Your task to perform on an android device: Open Google Maps and go to "Timeline" Image 0: 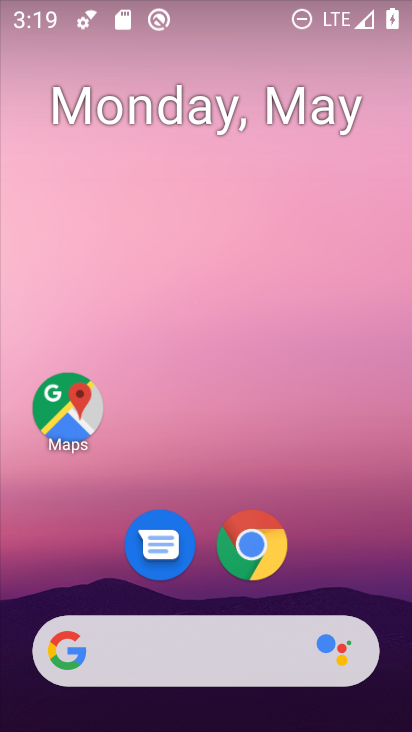
Step 0: click (90, 418)
Your task to perform on an android device: Open Google Maps and go to "Timeline" Image 1: 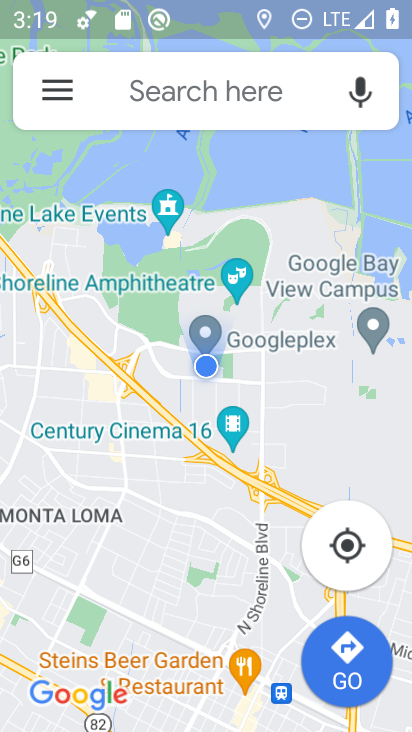
Step 1: click (66, 96)
Your task to perform on an android device: Open Google Maps and go to "Timeline" Image 2: 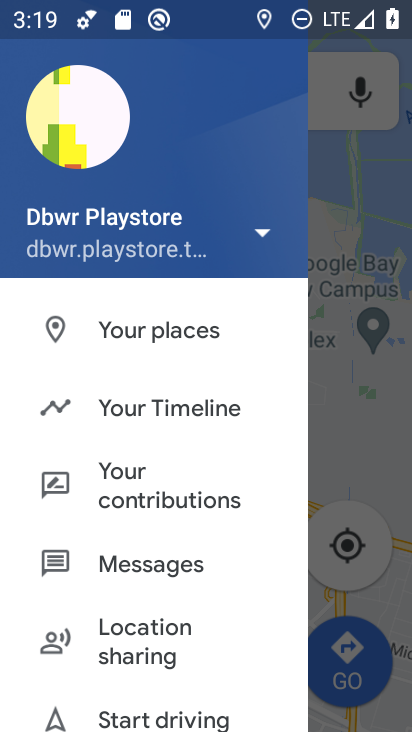
Step 2: click (157, 419)
Your task to perform on an android device: Open Google Maps and go to "Timeline" Image 3: 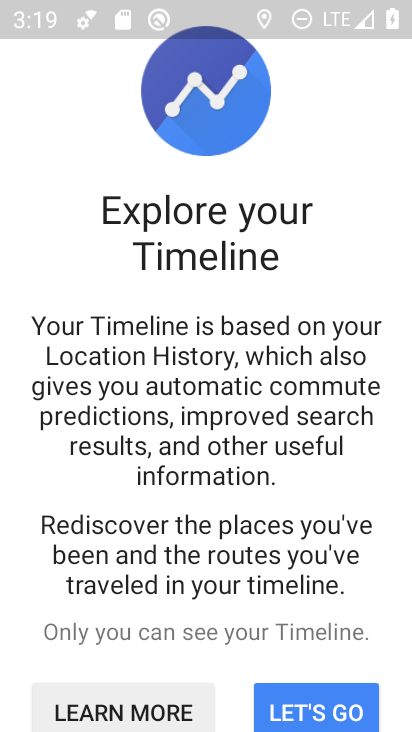
Step 3: click (300, 717)
Your task to perform on an android device: Open Google Maps and go to "Timeline" Image 4: 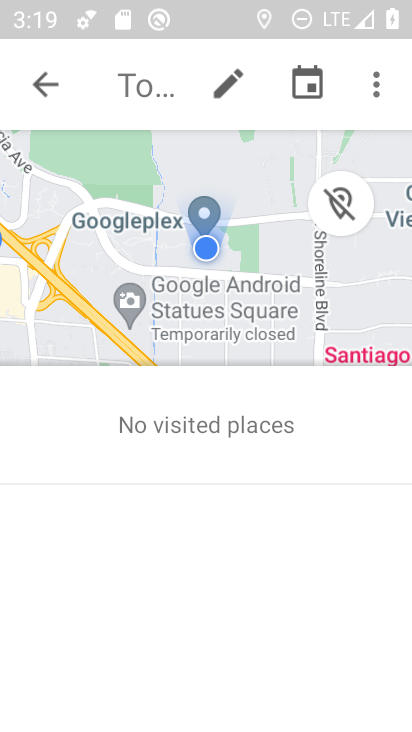
Step 4: task complete